Your task to perform on an android device: What's the weather going to be tomorrow? Image 0: 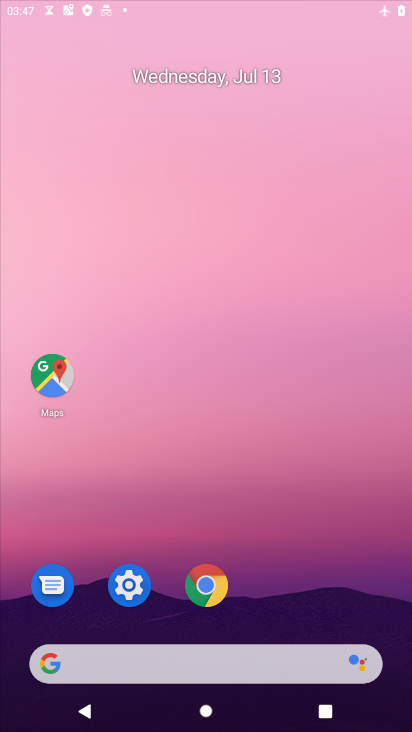
Step 0: drag from (251, 655) to (123, 36)
Your task to perform on an android device: What's the weather going to be tomorrow? Image 1: 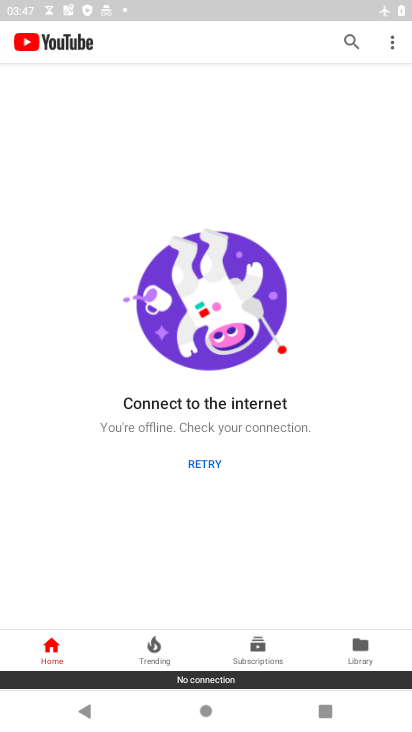
Step 1: press back button
Your task to perform on an android device: What's the weather going to be tomorrow? Image 2: 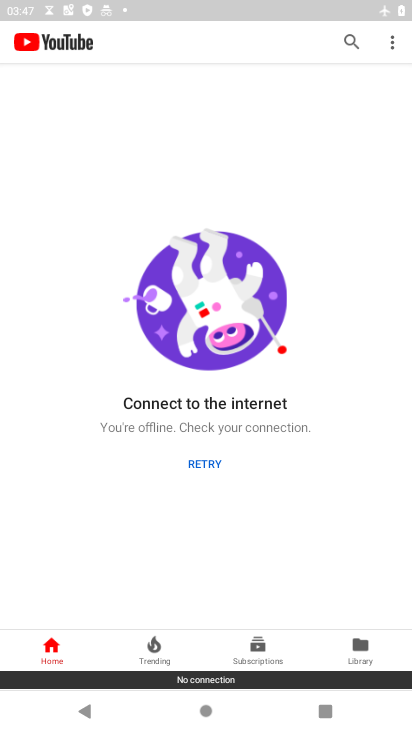
Step 2: press back button
Your task to perform on an android device: What's the weather going to be tomorrow? Image 3: 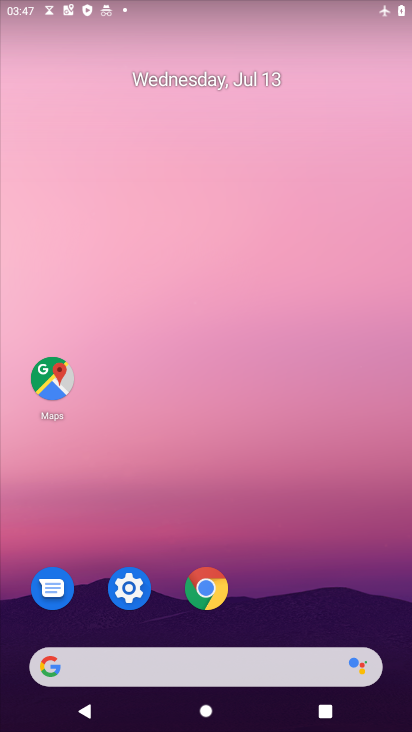
Step 3: drag from (270, 724) to (252, 147)
Your task to perform on an android device: What's the weather going to be tomorrow? Image 4: 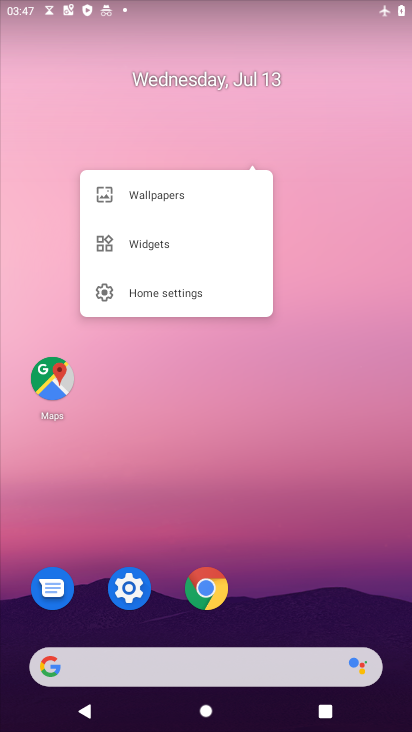
Step 4: drag from (232, 711) to (274, 116)
Your task to perform on an android device: What's the weather going to be tomorrow? Image 5: 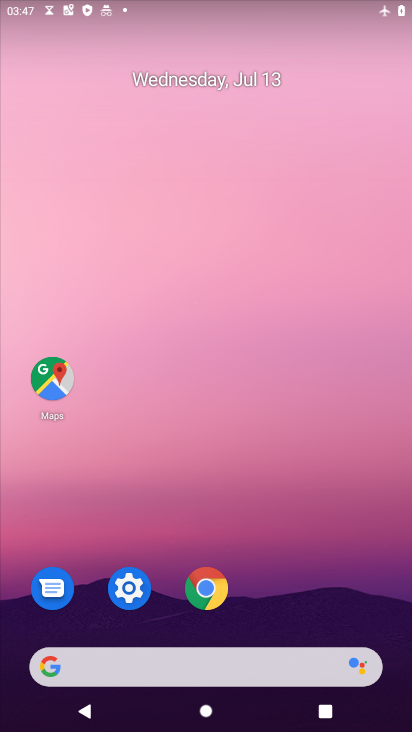
Step 5: drag from (255, 606) to (258, 119)
Your task to perform on an android device: What's the weather going to be tomorrow? Image 6: 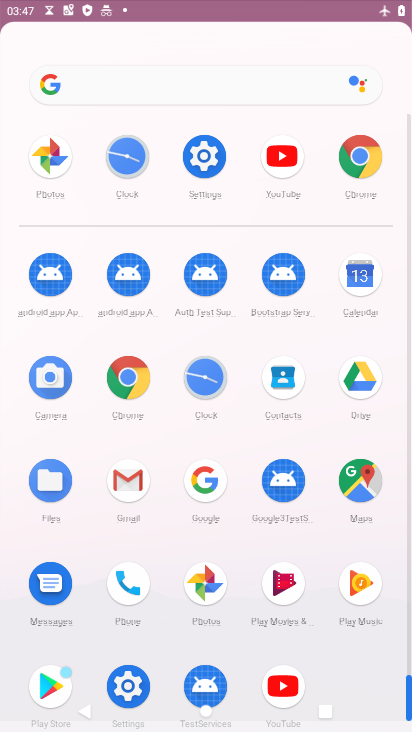
Step 6: drag from (250, 605) to (250, 136)
Your task to perform on an android device: What's the weather going to be tomorrow? Image 7: 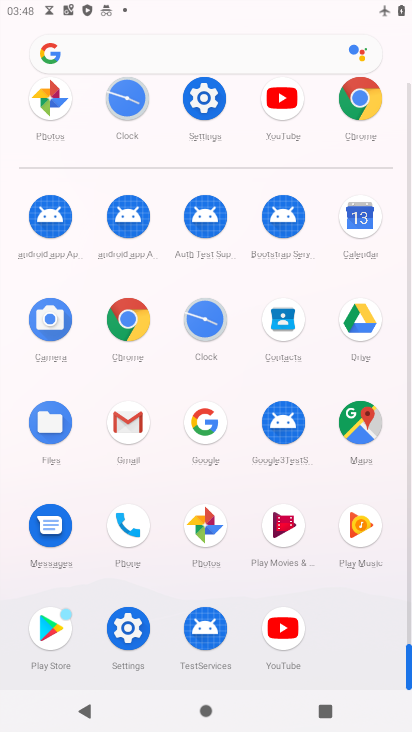
Step 7: click (361, 102)
Your task to perform on an android device: What's the weather going to be tomorrow? Image 8: 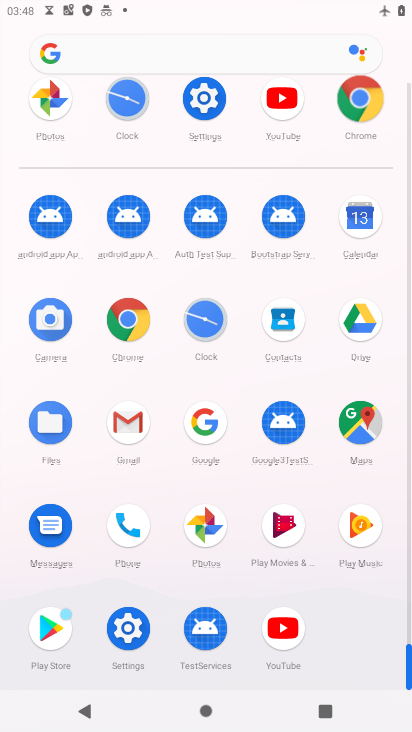
Step 8: click (361, 102)
Your task to perform on an android device: What's the weather going to be tomorrow? Image 9: 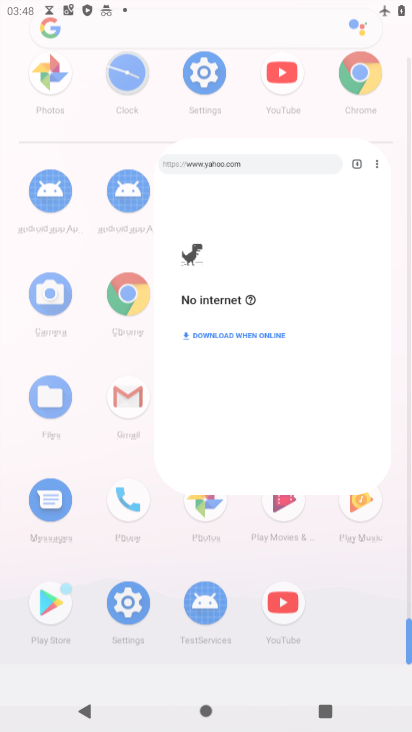
Step 9: click (361, 102)
Your task to perform on an android device: What's the weather going to be tomorrow? Image 10: 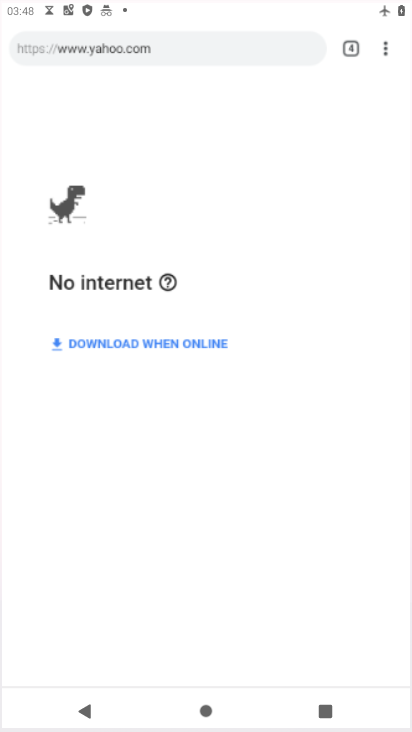
Step 10: click (361, 102)
Your task to perform on an android device: What's the weather going to be tomorrow? Image 11: 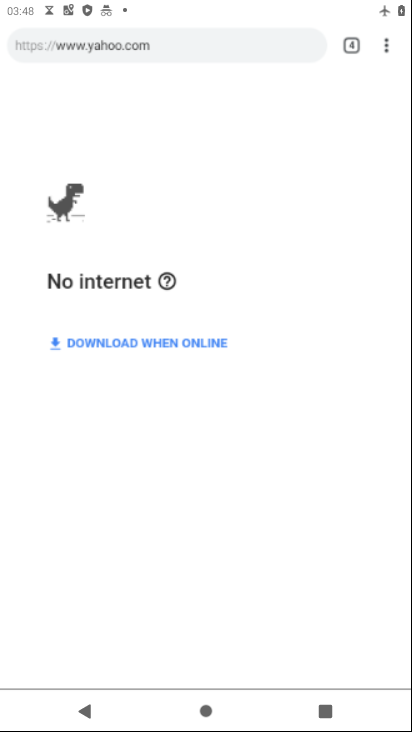
Step 11: click (362, 101)
Your task to perform on an android device: What's the weather going to be tomorrow? Image 12: 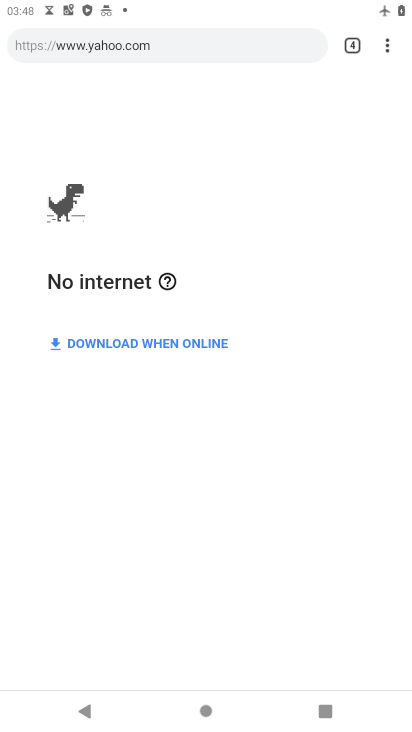
Step 12: press back button
Your task to perform on an android device: What's the weather going to be tomorrow? Image 13: 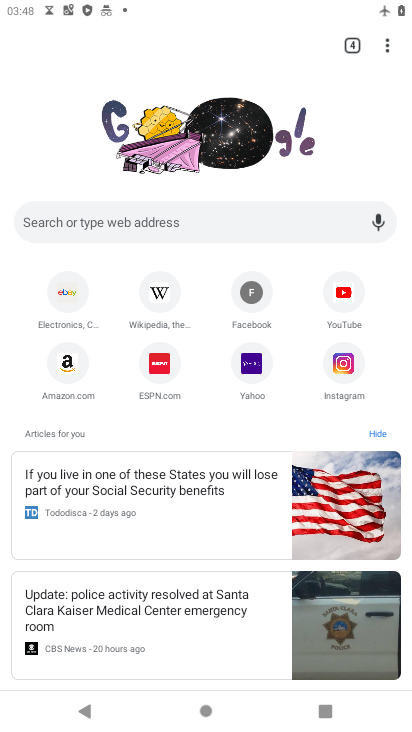
Step 13: press home button
Your task to perform on an android device: What's the weather going to be tomorrow? Image 14: 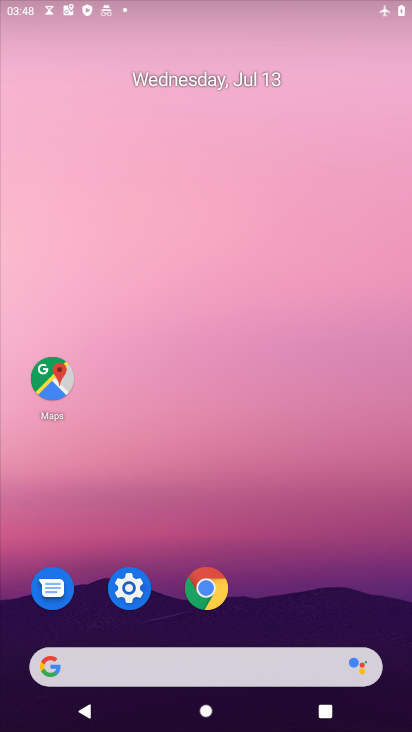
Step 14: drag from (194, 630) to (228, 6)
Your task to perform on an android device: What's the weather going to be tomorrow? Image 15: 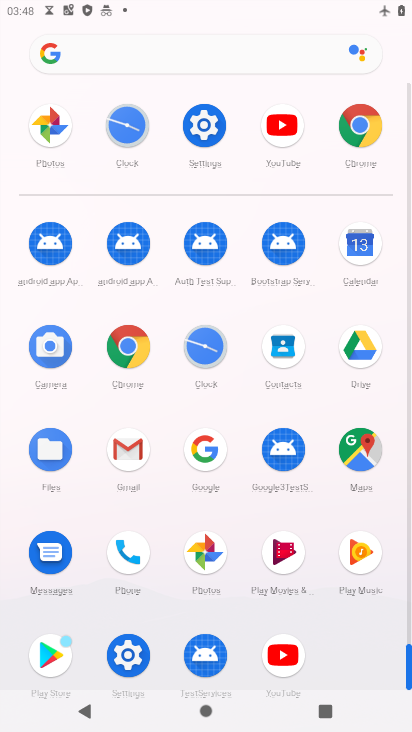
Step 15: click (207, 132)
Your task to perform on an android device: What's the weather going to be tomorrow? Image 16: 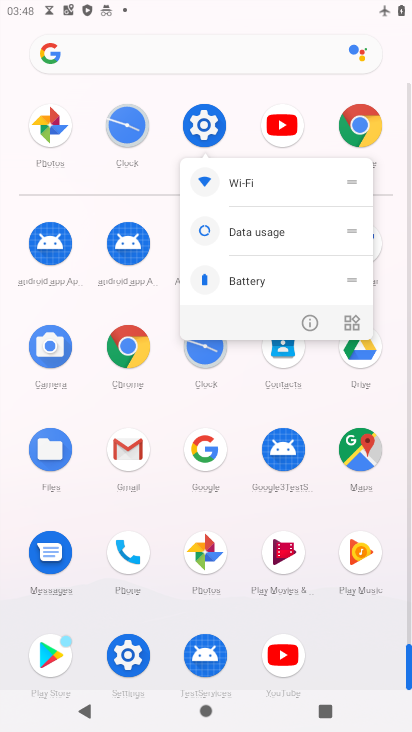
Step 16: click (339, 127)
Your task to perform on an android device: What's the weather going to be tomorrow? Image 17: 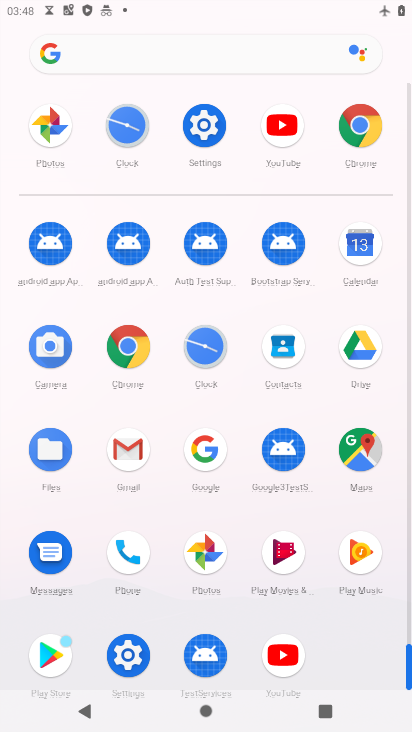
Step 17: click (209, 135)
Your task to perform on an android device: What's the weather going to be tomorrow? Image 18: 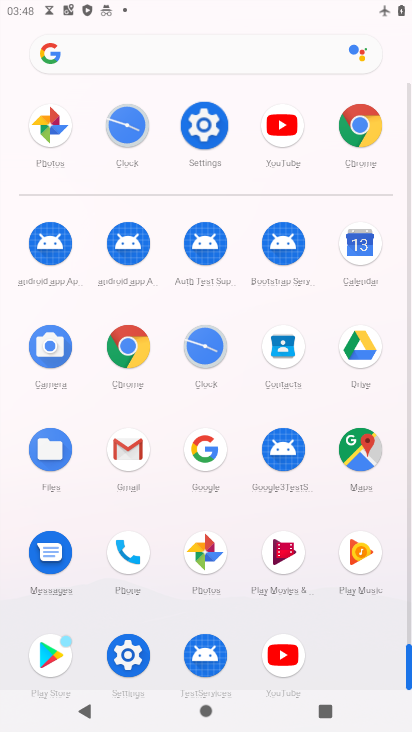
Step 18: click (209, 134)
Your task to perform on an android device: What's the weather going to be tomorrow? Image 19: 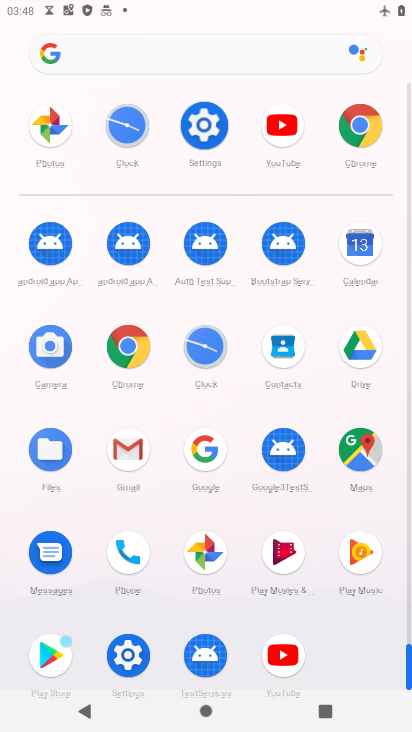
Step 19: click (209, 134)
Your task to perform on an android device: What's the weather going to be tomorrow? Image 20: 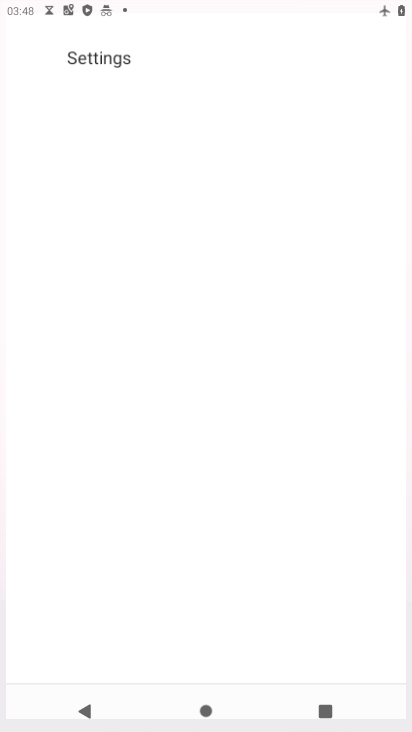
Step 20: click (209, 133)
Your task to perform on an android device: What's the weather going to be tomorrow? Image 21: 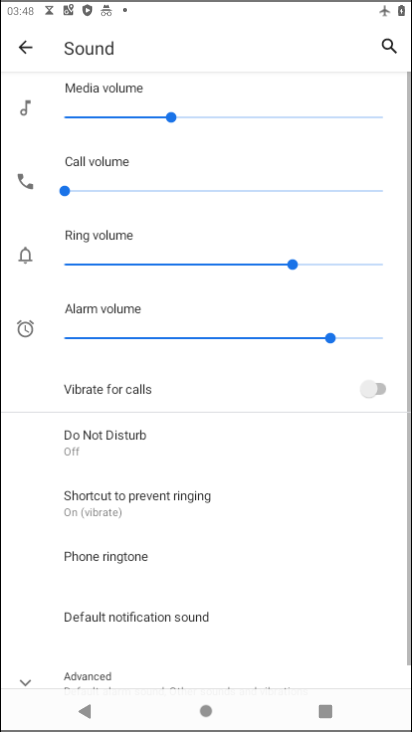
Step 21: drag from (131, 83) to (125, 533)
Your task to perform on an android device: What's the weather going to be tomorrow? Image 22: 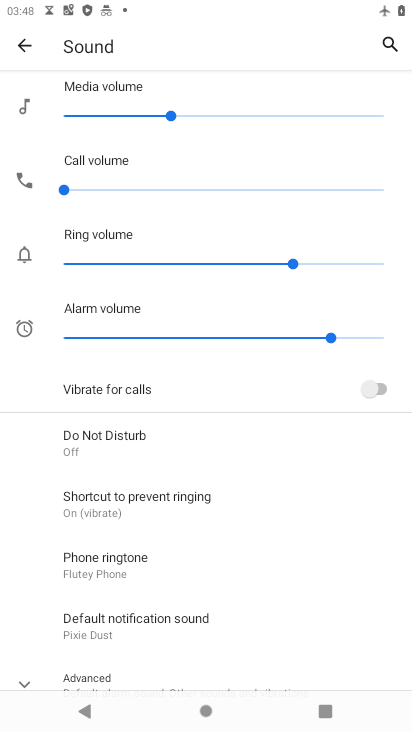
Step 22: click (25, 38)
Your task to perform on an android device: What's the weather going to be tomorrow? Image 23: 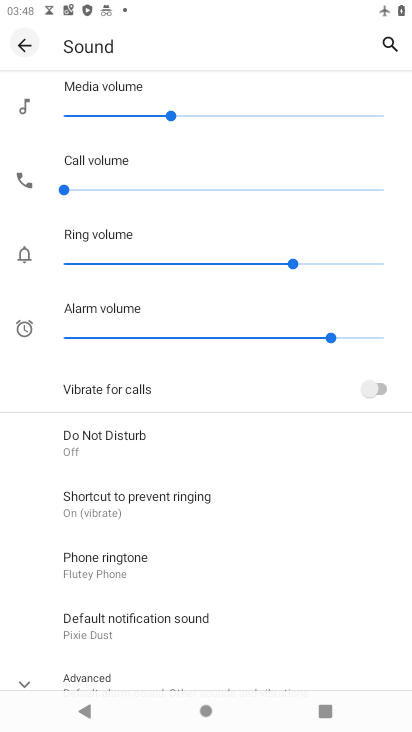
Step 23: click (28, 34)
Your task to perform on an android device: What's the weather going to be tomorrow? Image 24: 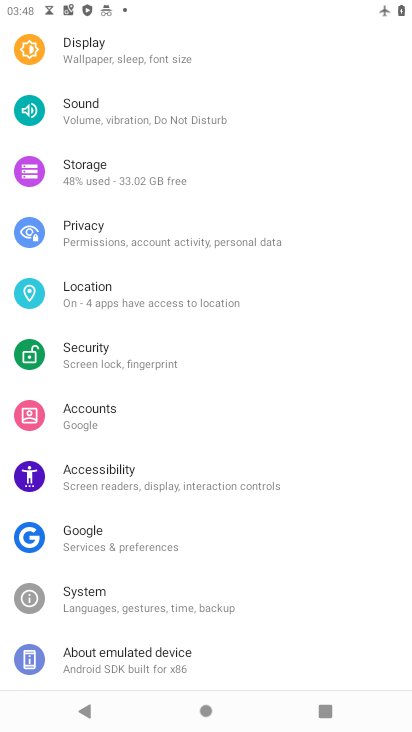
Step 24: drag from (112, 68) to (128, 498)
Your task to perform on an android device: What's the weather going to be tomorrow? Image 25: 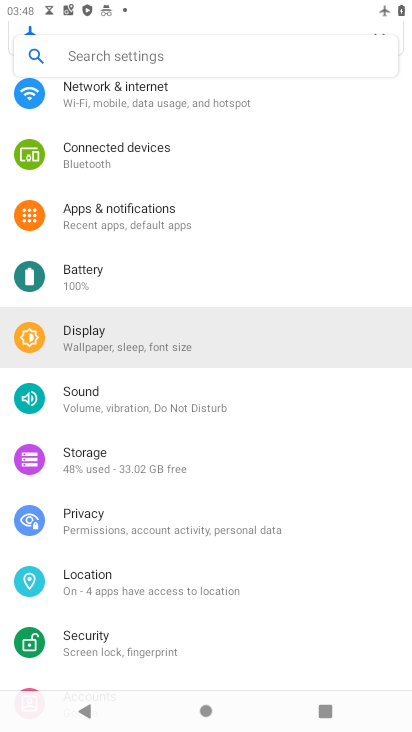
Step 25: drag from (74, 182) to (121, 530)
Your task to perform on an android device: What's the weather going to be tomorrow? Image 26: 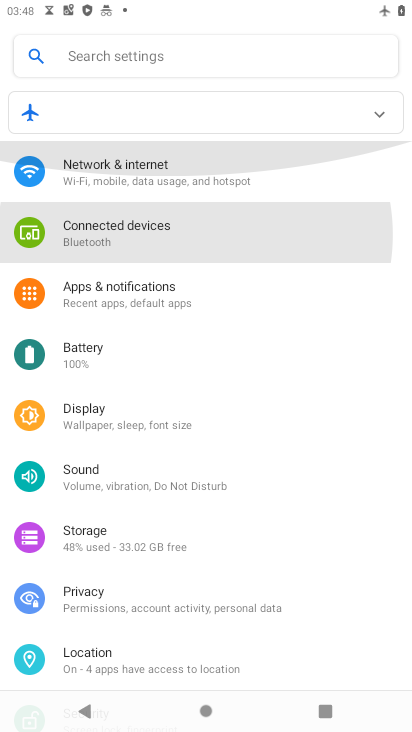
Step 26: drag from (90, 90) to (196, 551)
Your task to perform on an android device: What's the weather going to be tomorrow? Image 27: 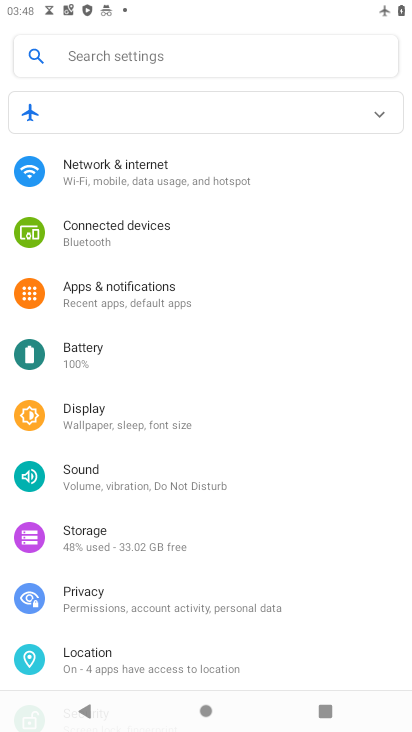
Step 27: drag from (193, 176) to (198, 589)
Your task to perform on an android device: What's the weather going to be tomorrow? Image 28: 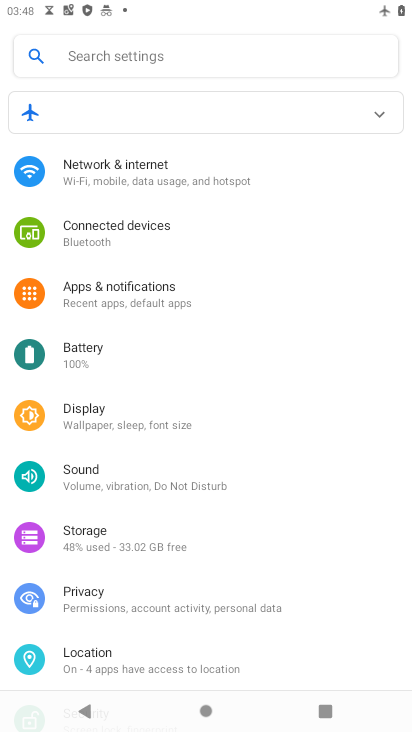
Step 28: click (152, 168)
Your task to perform on an android device: What's the weather going to be tomorrow? Image 29: 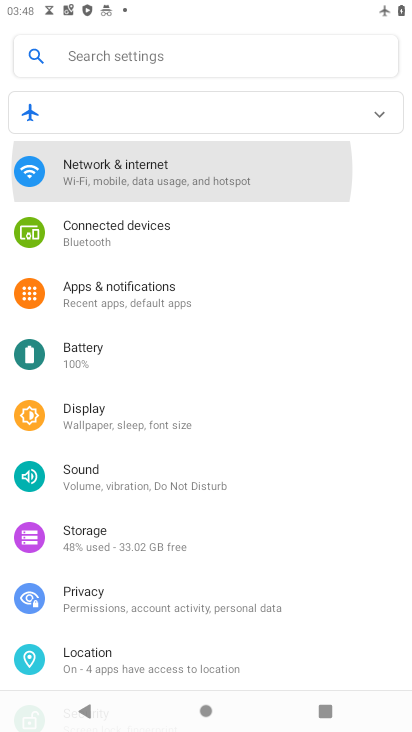
Step 29: click (153, 167)
Your task to perform on an android device: What's the weather going to be tomorrow? Image 30: 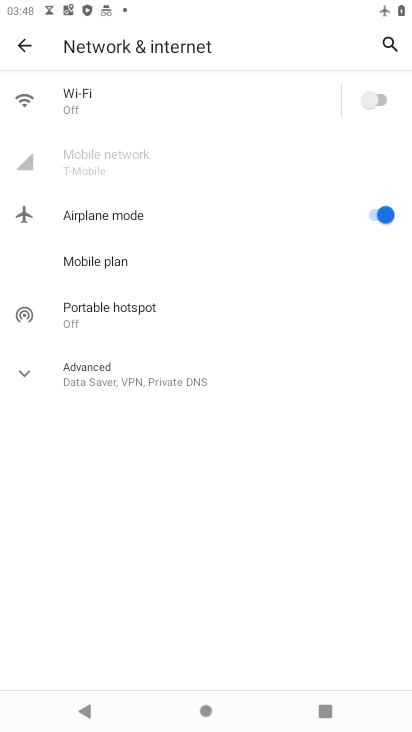
Step 30: click (377, 88)
Your task to perform on an android device: What's the weather going to be tomorrow? Image 31: 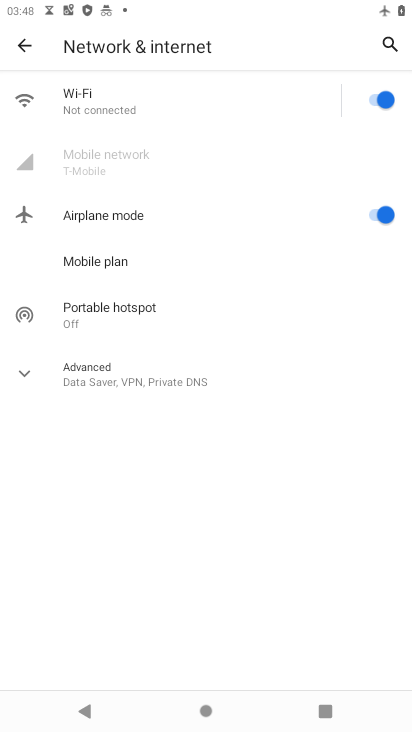
Step 31: click (391, 212)
Your task to perform on an android device: What's the weather going to be tomorrow? Image 32: 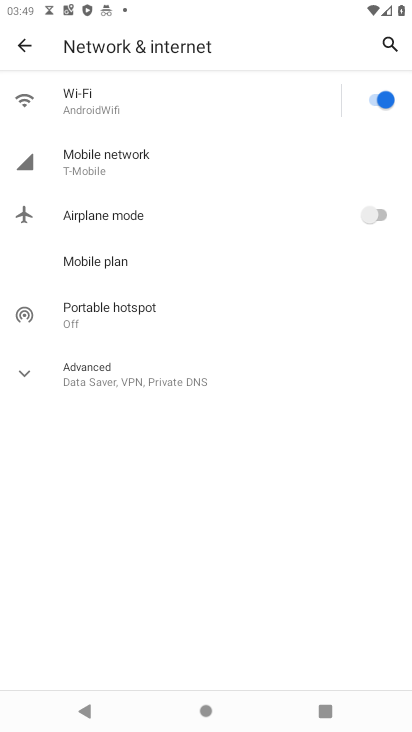
Step 32: click (22, 48)
Your task to perform on an android device: What's the weather going to be tomorrow? Image 33: 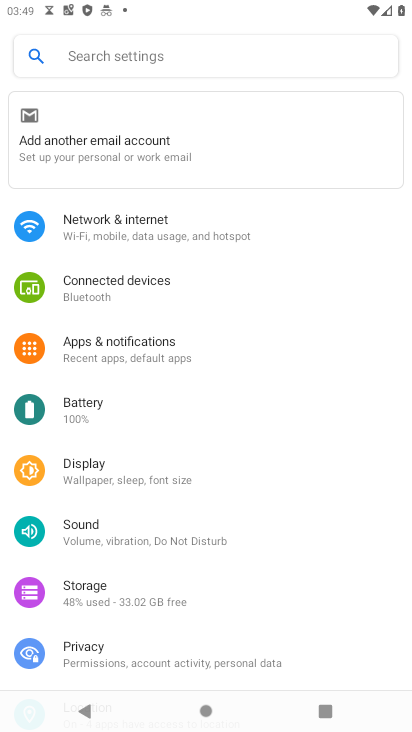
Step 33: press back button
Your task to perform on an android device: What's the weather going to be tomorrow? Image 34: 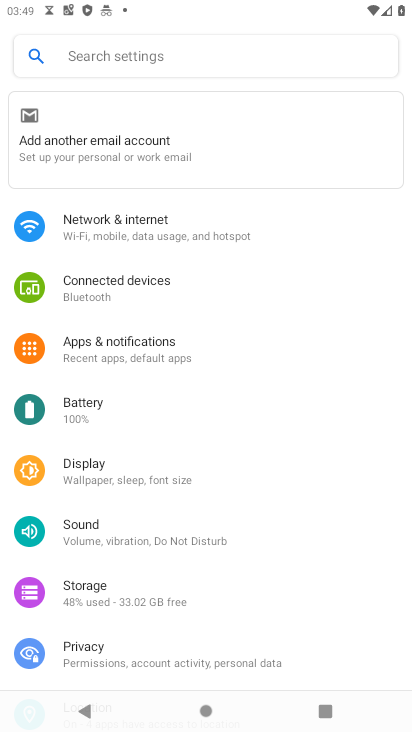
Step 34: press back button
Your task to perform on an android device: What's the weather going to be tomorrow? Image 35: 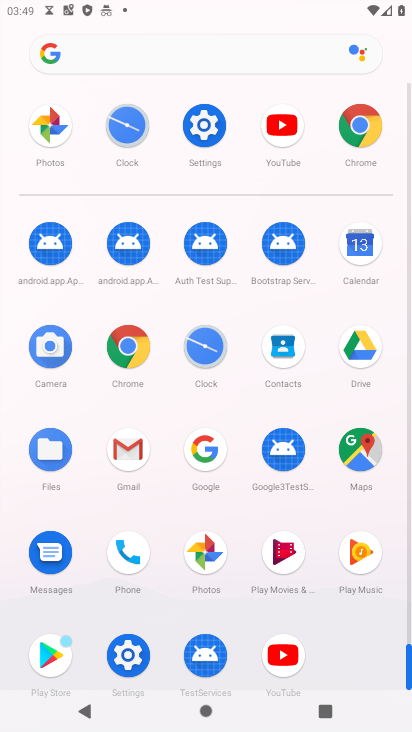
Step 35: press back button
Your task to perform on an android device: What's the weather going to be tomorrow? Image 36: 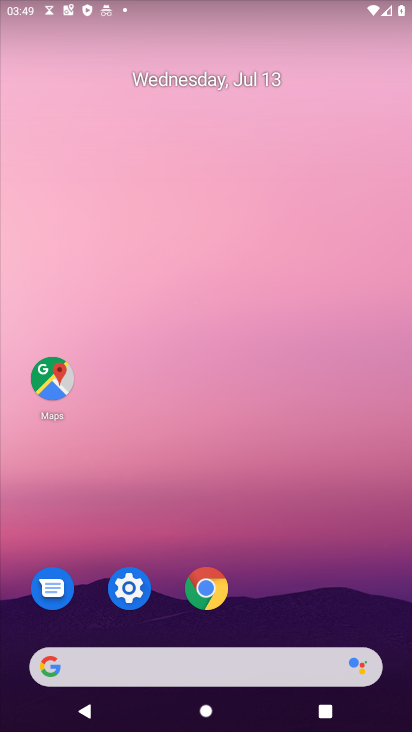
Step 36: drag from (295, 556) to (317, 84)
Your task to perform on an android device: What's the weather going to be tomorrow? Image 37: 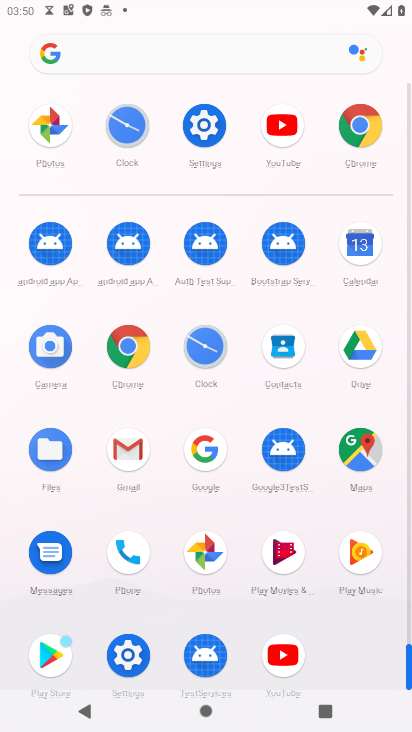
Step 37: click (362, 121)
Your task to perform on an android device: What's the weather going to be tomorrow? Image 38: 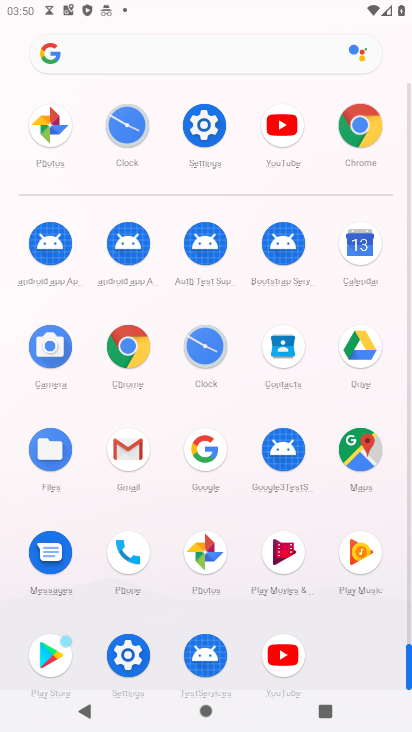
Step 38: click (366, 140)
Your task to perform on an android device: What's the weather going to be tomorrow? Image 39: 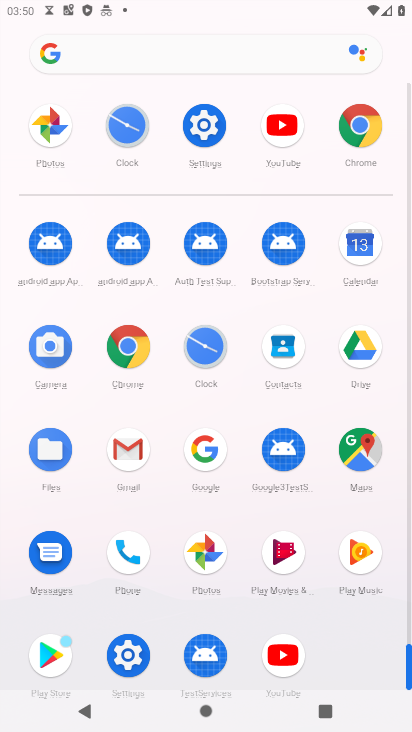
Step 39: click (366, 142)
Your task to perform on an android device: What's the weather going to be tomorrow? Image 40: 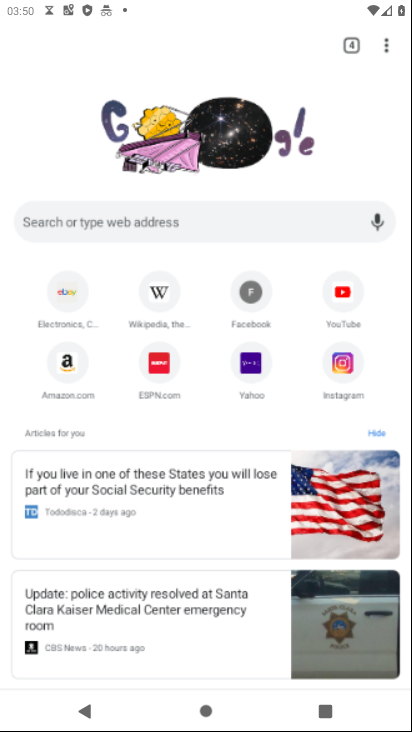
Step 40: click (351, 127)
Your task to perform on an android device: What's the weather going to be tomorrow? Image 41: 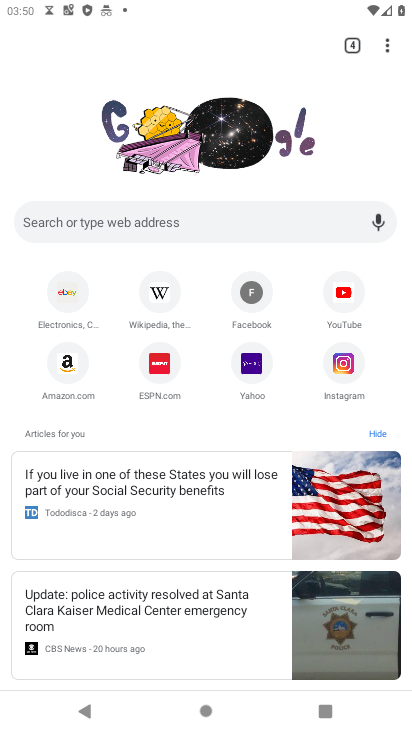
Step 41: click (109, 236)
Your task to perform on an android device: What's the weather going to be tomorrow? Image 42: 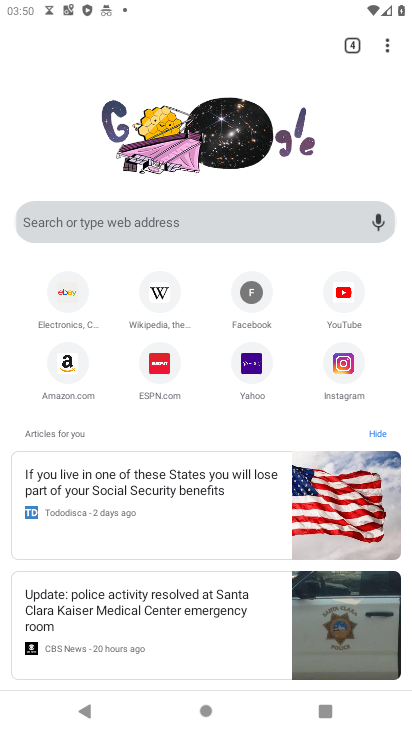
Step 42: click (114, 231)
Your task to perform on an android device: What's the weather going to be tomorrow? Image 43: 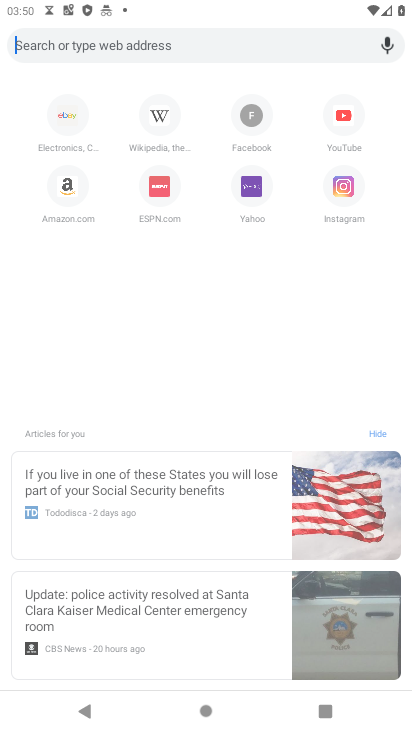
Step 43: click (115, 230)
Your task to perform on an android device: What's the weather going to be tomorrow? Image 44: 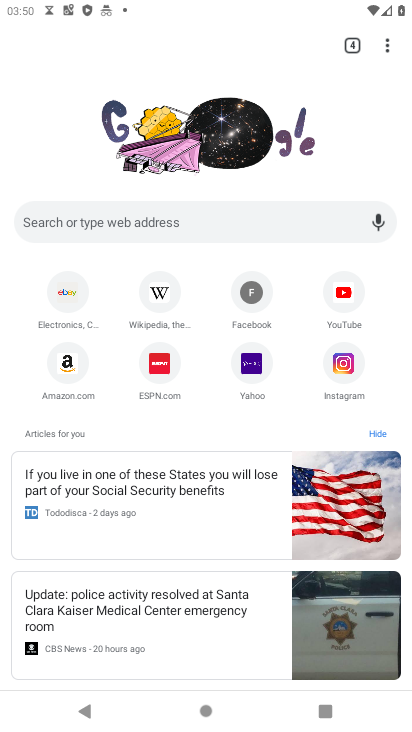
Step 44: type "tomorrow weather"
Your task to perform on an android device: What's the weather going to be tomorrow? Image 45: 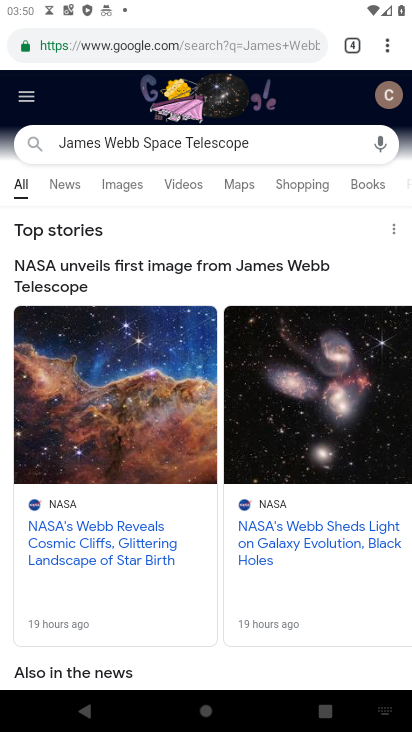
Step 45: click (225, 131)
Your task to perform on an android device: What's the weather going to be tomorrow? Image 46: 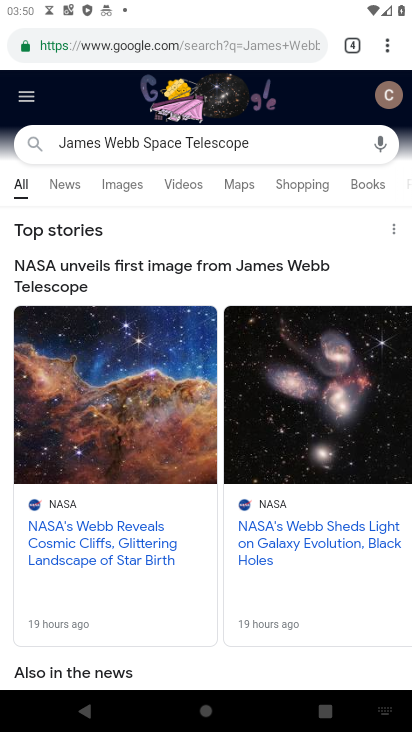
Step 46: click (225, 131)
Your task to perform on an android device: What's the weather going to be tomorrow? Image 47: 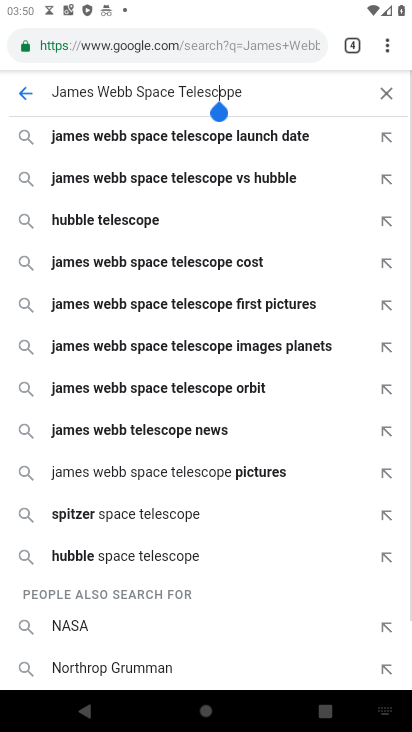
Step 47: click (246, 132)
Your task to perform on an android device: What's the weather going to be tomorrow? Image 48: 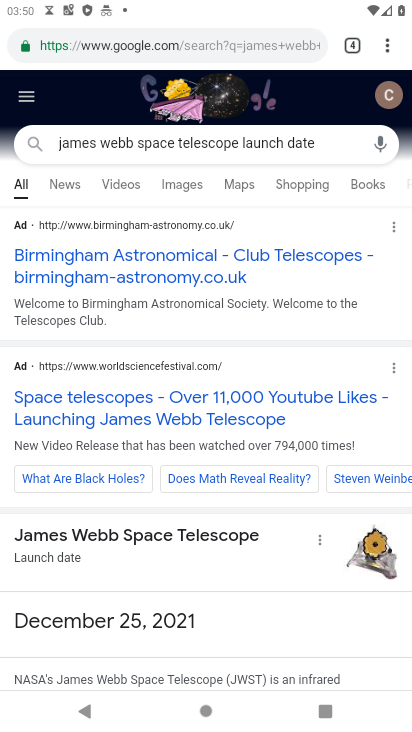
Step 48: task complete